Your task to perform on an android device: Open Google Maps Image 0: 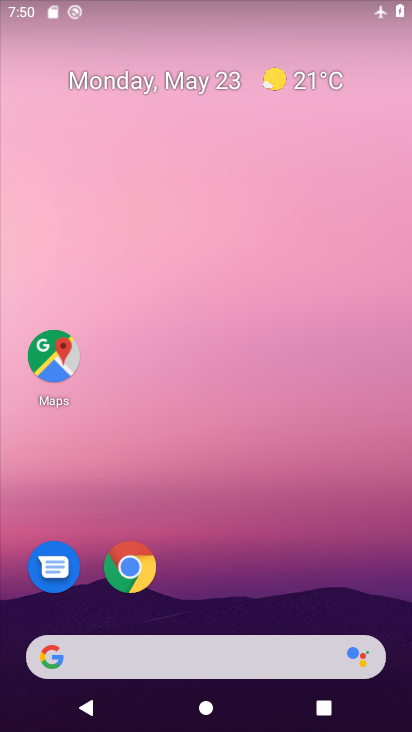
Step 0: click (61, 373)
Your task to perform on an android device: Open Google Maps Image 1: 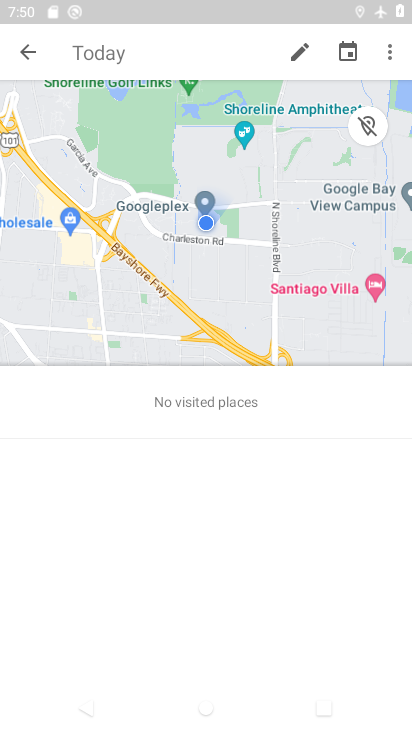
Step 1: task complete